Your task to perform on an android device: find which apps use the phone's location Image 0: 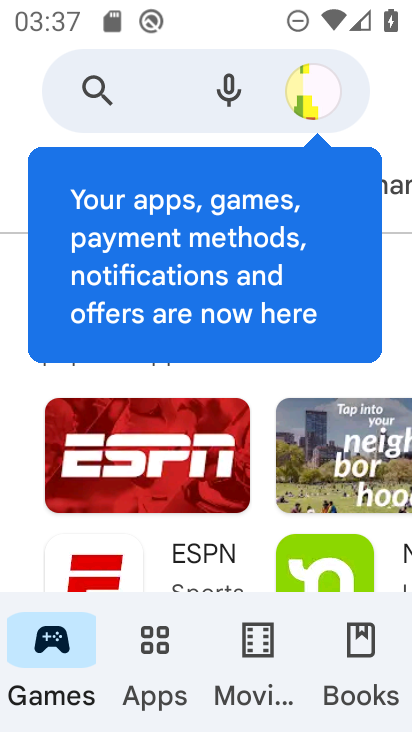
Step 0: press home button
Your task to perform on an android device: find which apps use the phone's location Image 1: 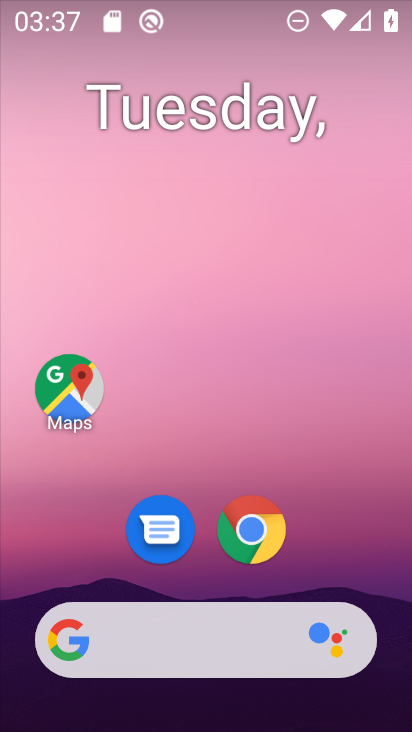
Step 1: drag from (321, 574) to (320, 208)
Your task to perform on an android device: find which apps use the phone's location Image 2: 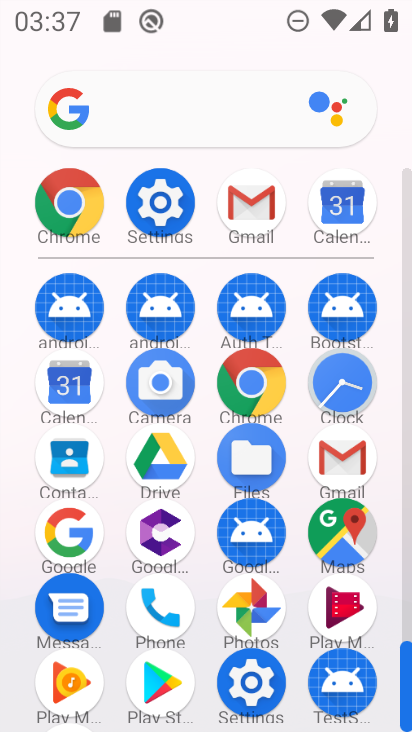
Step 2: click (170, 198)
Your task to perform on an android device: find which apps use the phone's location Image 3: 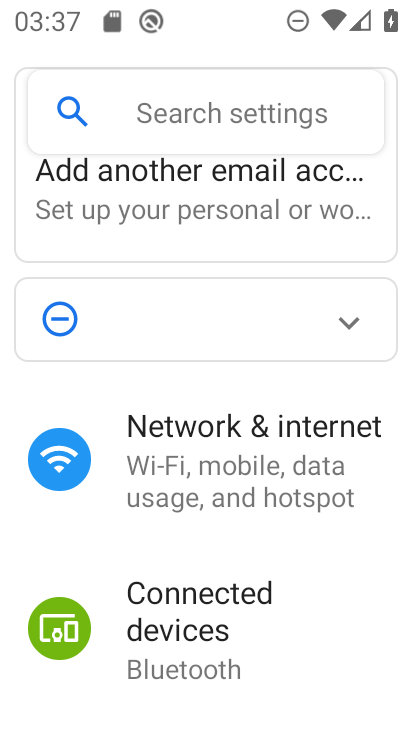
Step 3: drag from (223, 592) to (246, 230)
Your task to perform on an android device: find which apps use the phone's location Image 4: 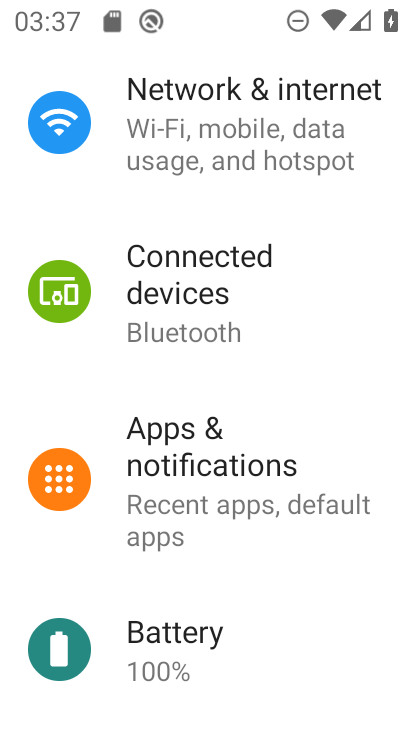
Step 4: drag from (264, 581) to (298, 165)
Your task to perform on an android device: find which apps use the phone's location Image 5: 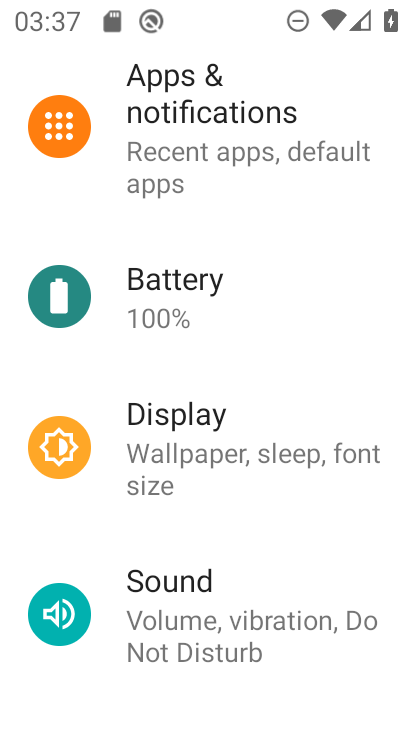
Step 5: drag from (256, 163) to (263, 119)
Your task to perform on an android device: find which apps use the phone's location Image 6: 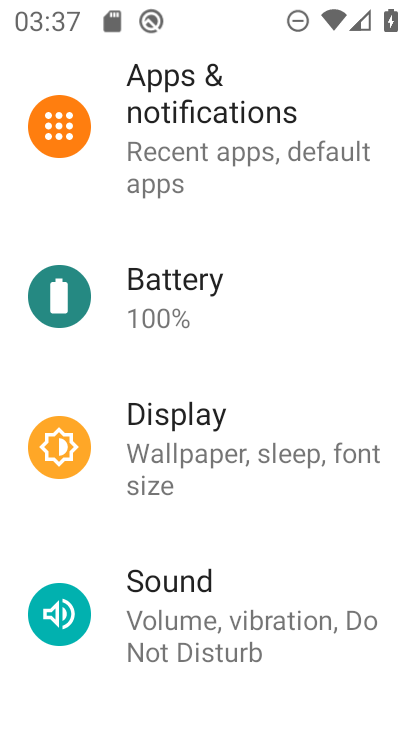
Step 6: drag from (192, 561) to (218, 230)
Your task to perform on an android device: find which apps use the phone's location Image 7: 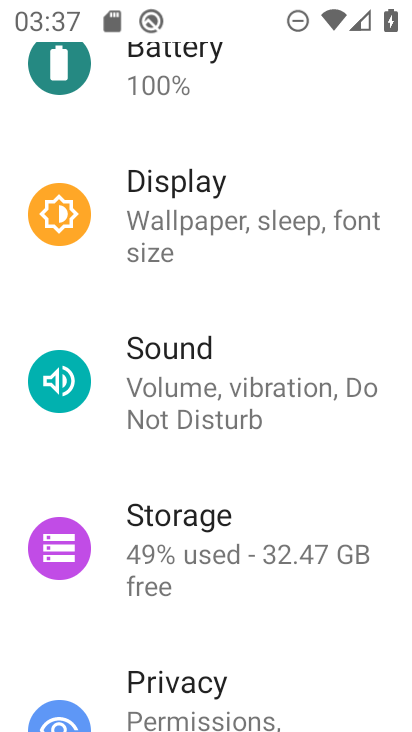
Step 7: drag from (199, 636) to (238, 199)
Your task to perform on an android device: find which apps use the phone's location Image 8: 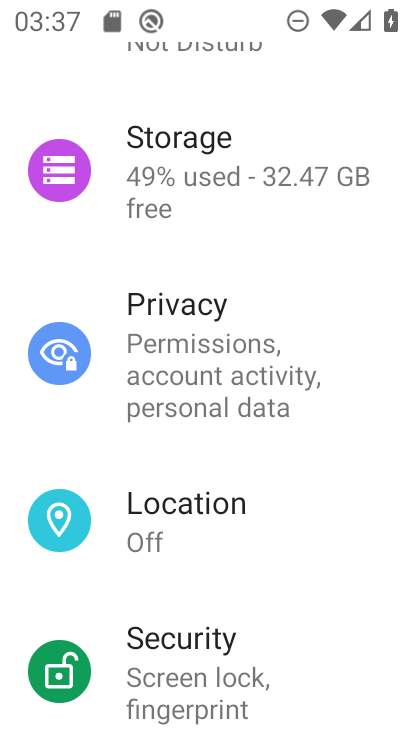
Step 8: click (195, 537)
Your task to perform on an android device: find which apps use the phone's location Image 9: 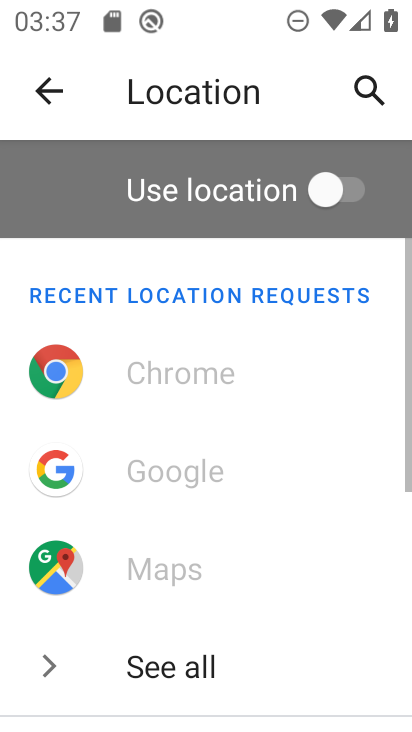
Step 9: task complete